Your task to perform on an android device: Open the map Image 0: 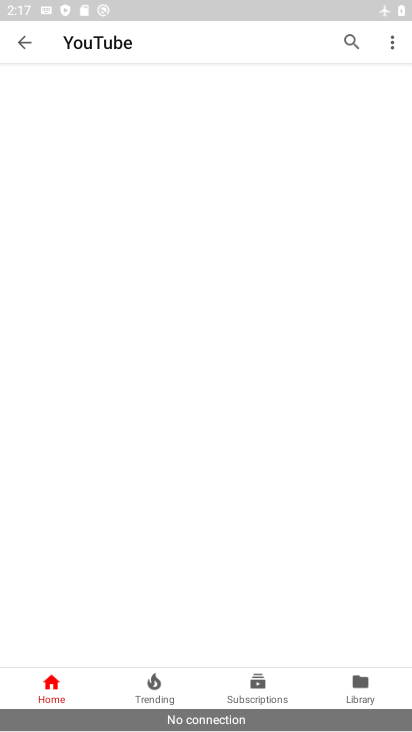
Step 0: drag from (272, 607) to (312, 349)
Your task to perform on an android device: Open the map Image 1: 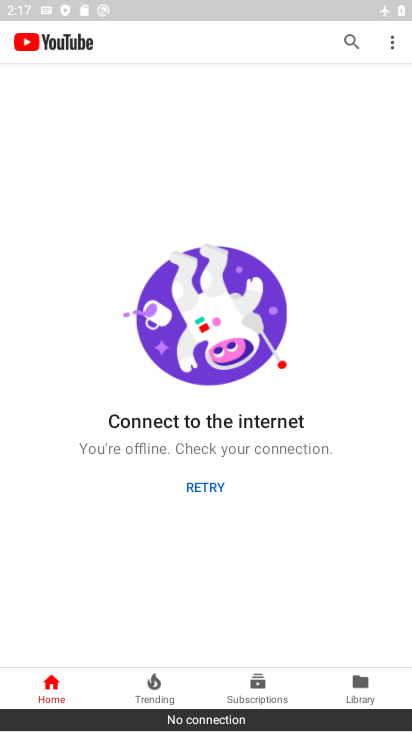
Step 1: press home button
Your task to perform on an android device: Open the map Image 2: 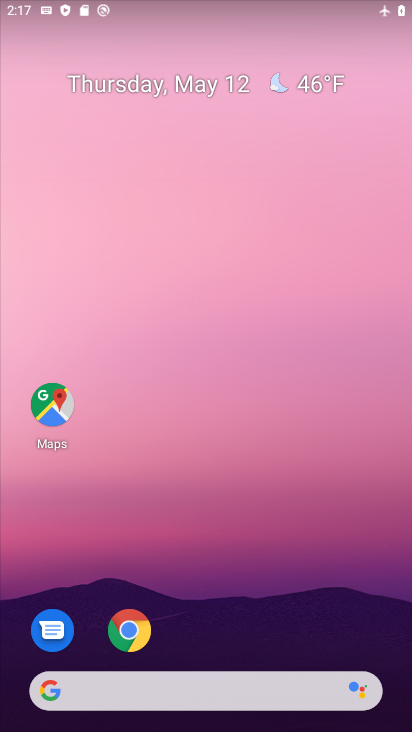
Step 2: click (49, 420)
Your task to perform on an android device: Open the map Image 3: 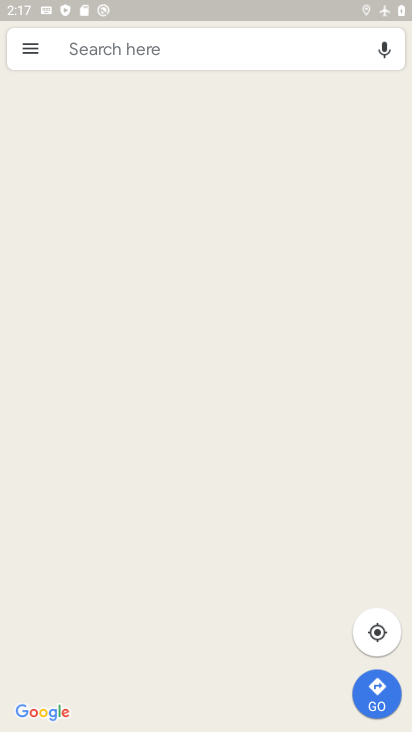
Step 3: task complete